Your task to perform on an android device: check google app version Image 0: 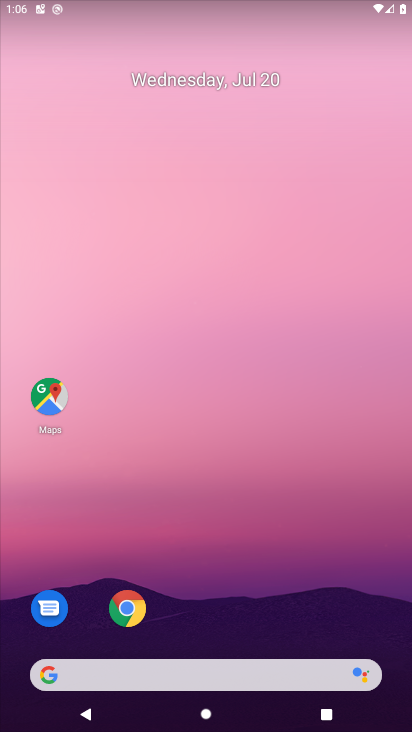
Step 0: drag from (246, 622) to (215, 213)
Your task to perform on an android device: check google app version Image 1: 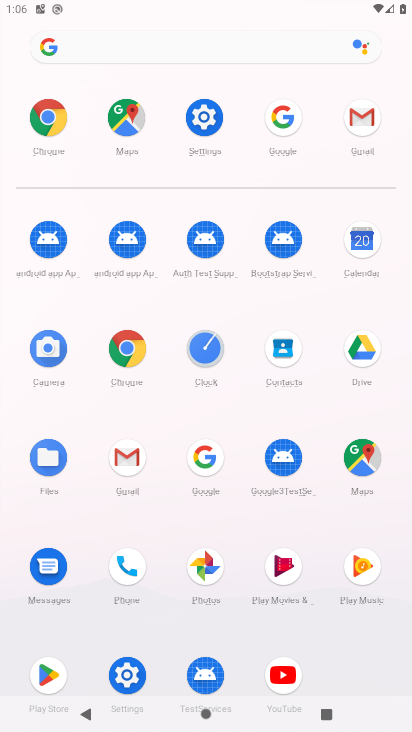
Step 1: click (201, 464)
Your task to perform on an android device: check google app version Image 2: 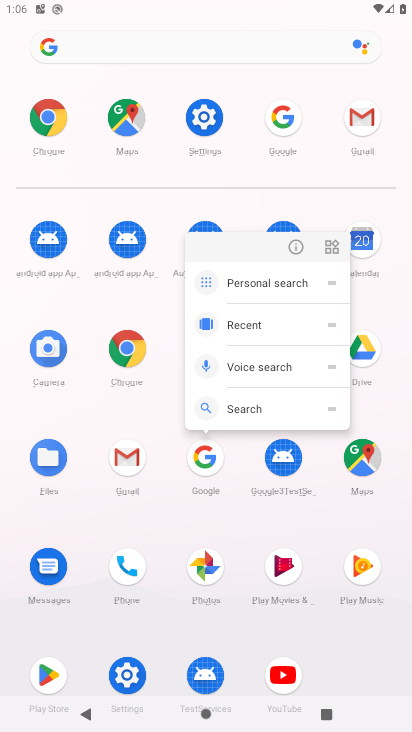
Step 2: click (299, 241)
Your task to perform on an android device: check google app version Image 3: 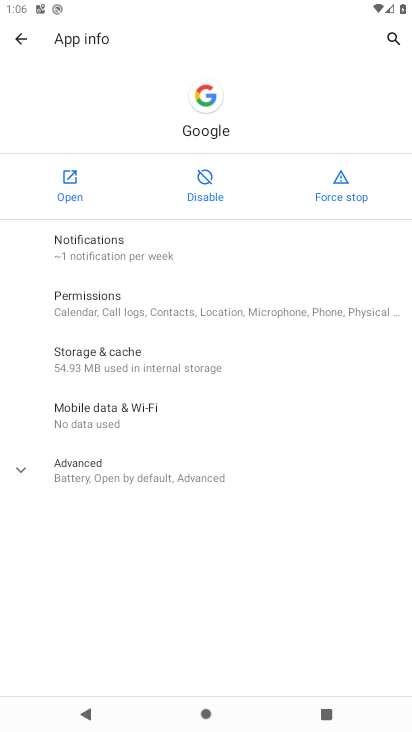
Step 3: click (105, 470)
Your task to perform on an android device: check google app version Image 4: 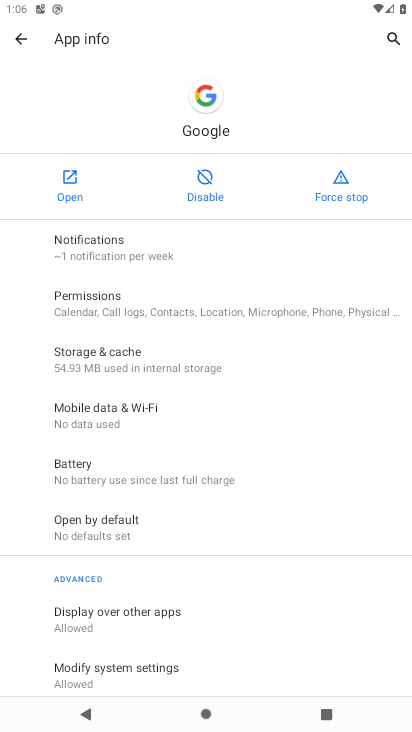
Step 4: task complete